Your task to perform on an android device: Turn on the flashlight Image 0: 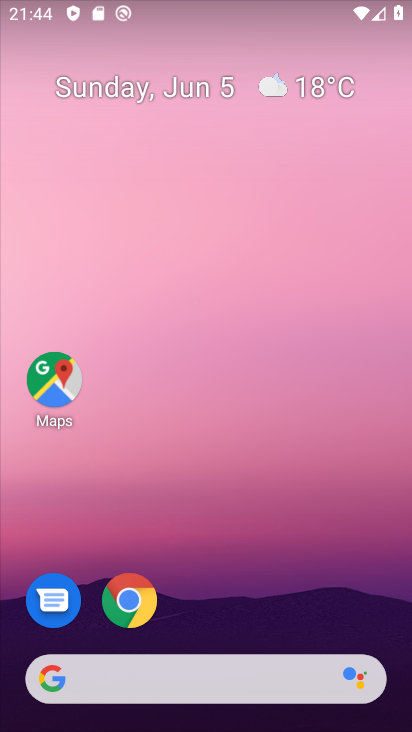
Step 0: drag from (316, 571) to (265, 126)
Your task to perform on an android device: Turn on the flashlight Image 1: 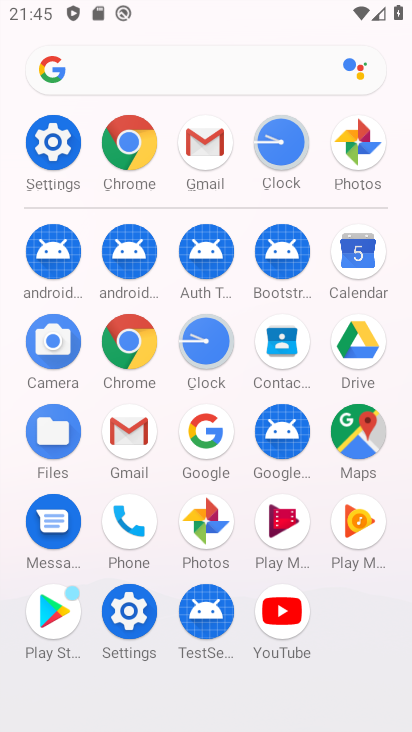
Step 1: click (60, 150)
Your task to perform on an android device: Turn on the flashlight Image 2: 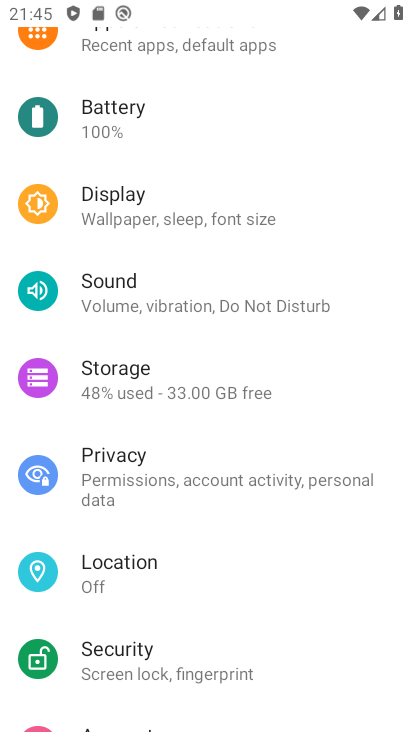
Step 2: click (205, 222)
Your task to perform on an android device: Turn on the flashlight Image 3: 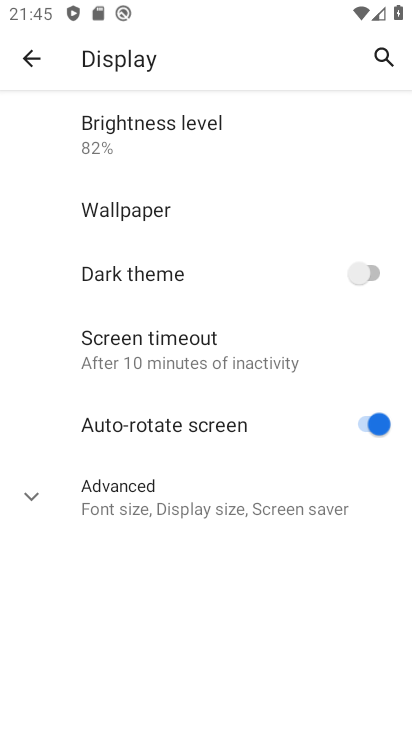
Step 3: task complete